Your task to perform on an android device: Open privacy settings Image 0: 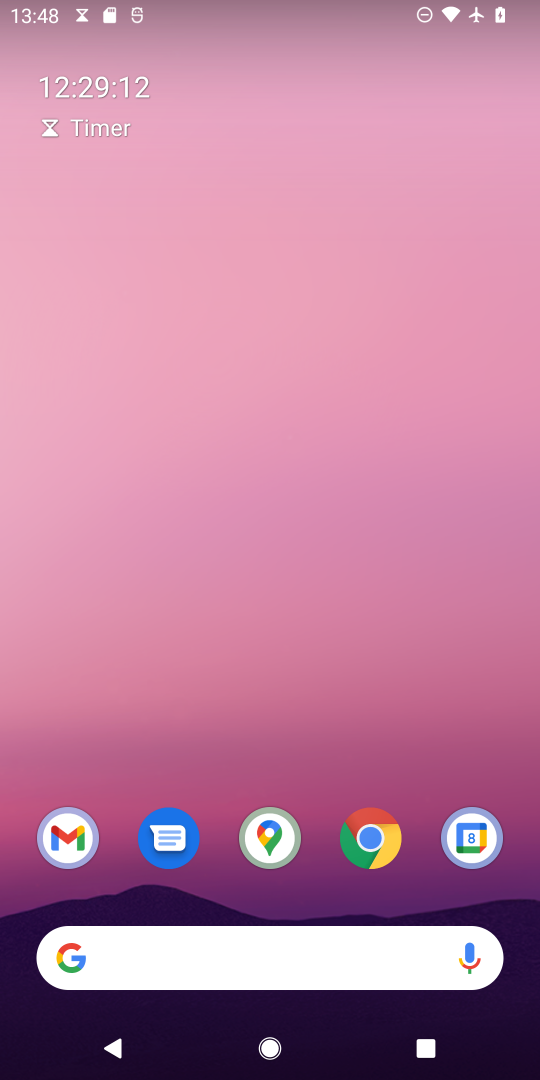
Step 0: press home button
Your task to perform on an android device: Open privacy settings Image 1: 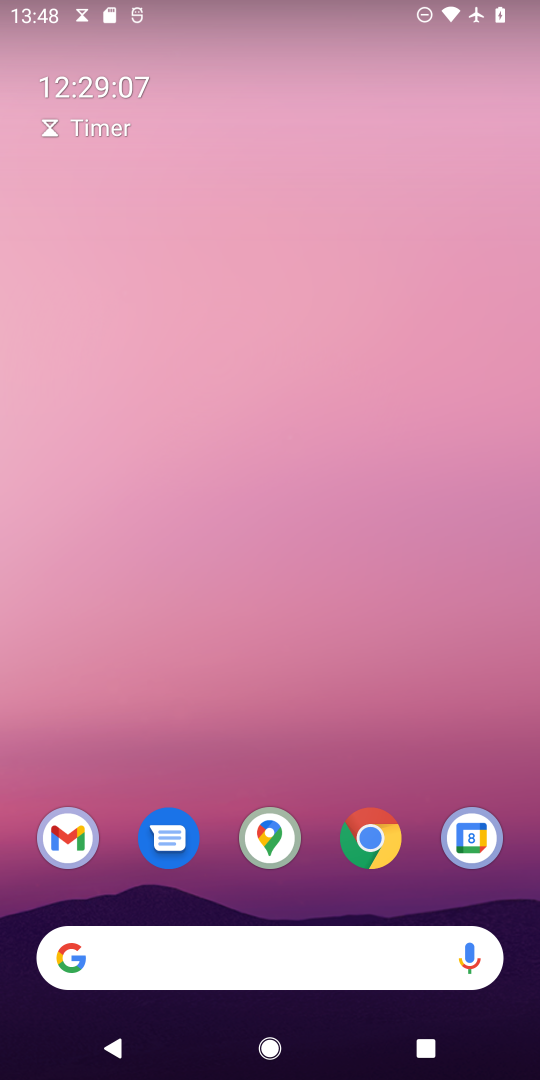
Step 1: drag from (315, 796) to (384, 90)
Your task to perform on an android device: Open privacy settings Image 2: 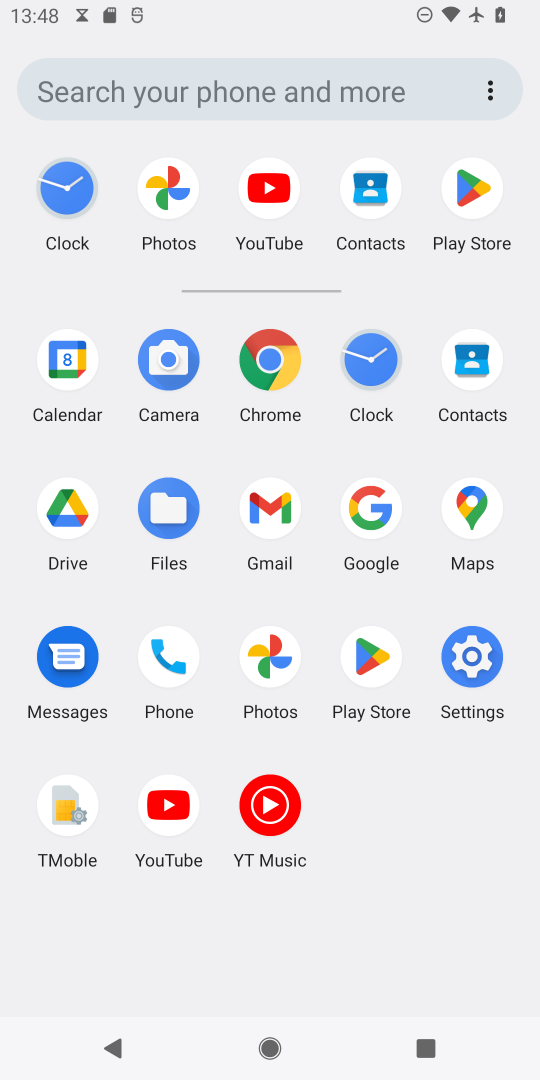
Step 2: click (464, 636)
Your task to perform on an android device: Open privacy settings Image 3: 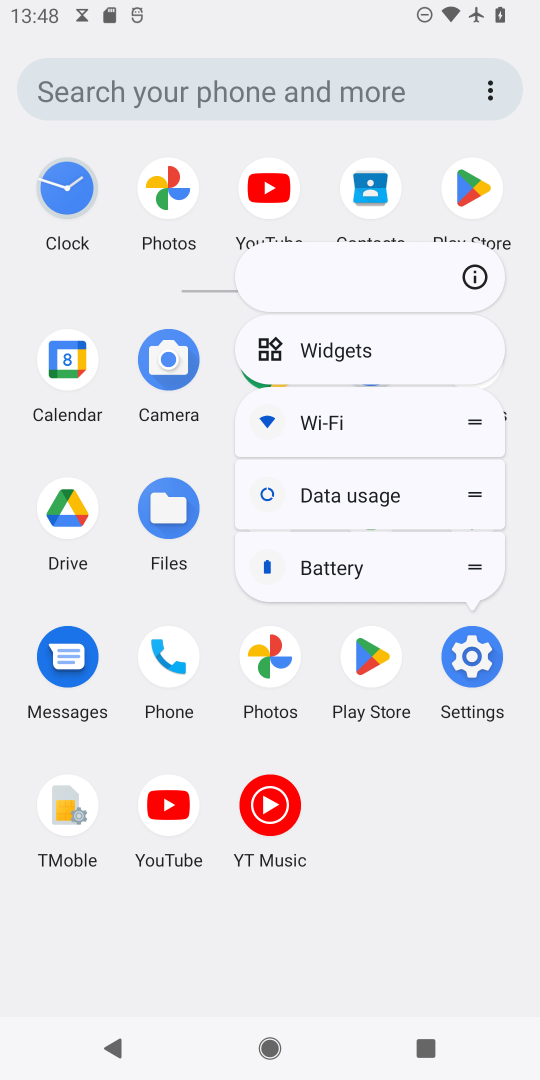
Step 3: click (467, 639)
Your task to perform on an android device: Open privacy settings Image 4: 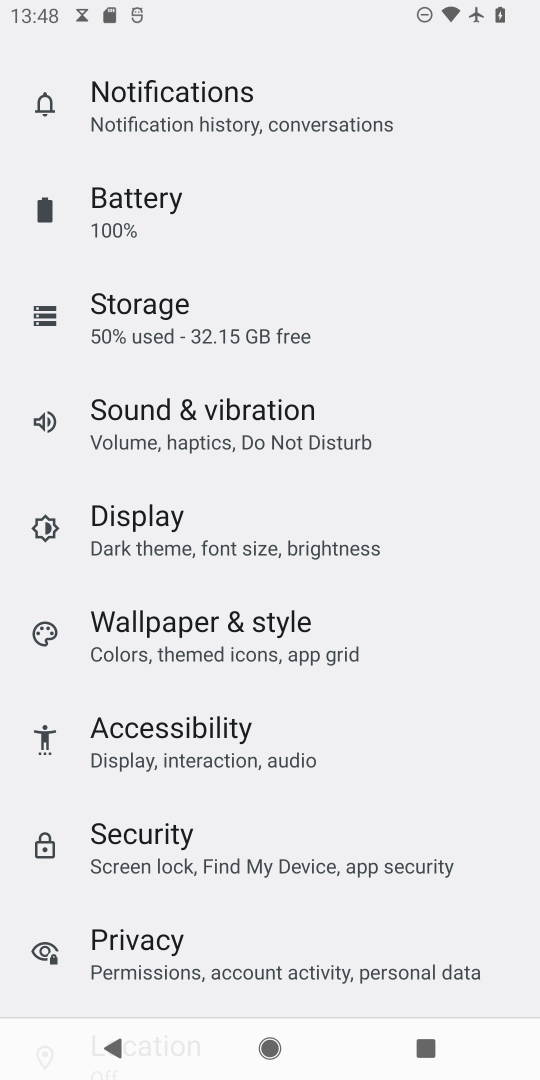
Step 4: click (137, 924)
Your task to perform on an android device: Open privacy settings Image 5: 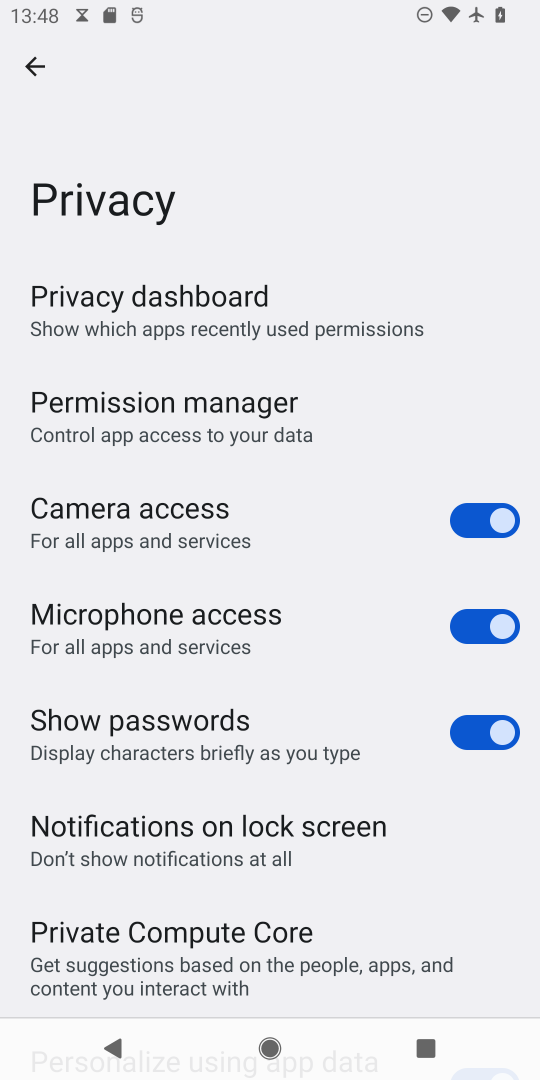
Step 5: task complete